Your task to perform on an android device: find which apps use the phone's location Image 0: 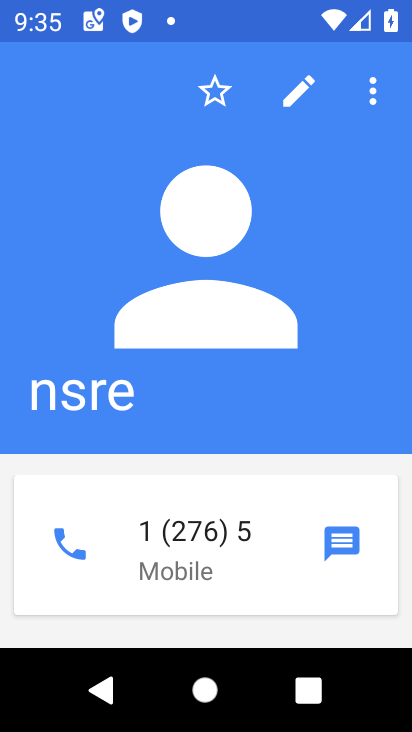
Step 0: press home button
Your task to perform on an android device: find which apps use the phone's location Image 1: 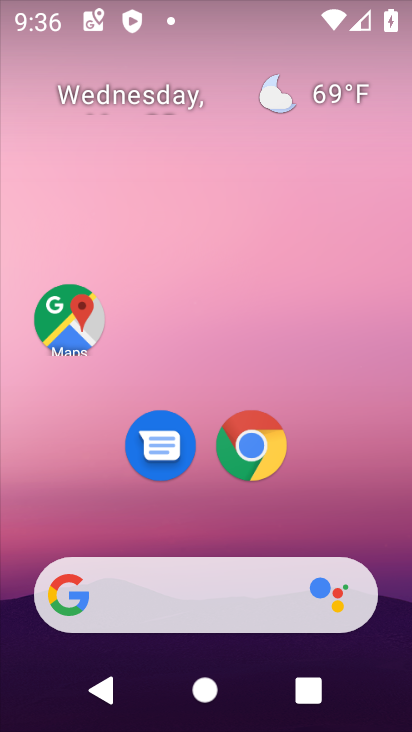
Step 1: drag from (401, 576) to (330, 264)
Your task to perform on an android device: find which apps use the phone's location Image 2: 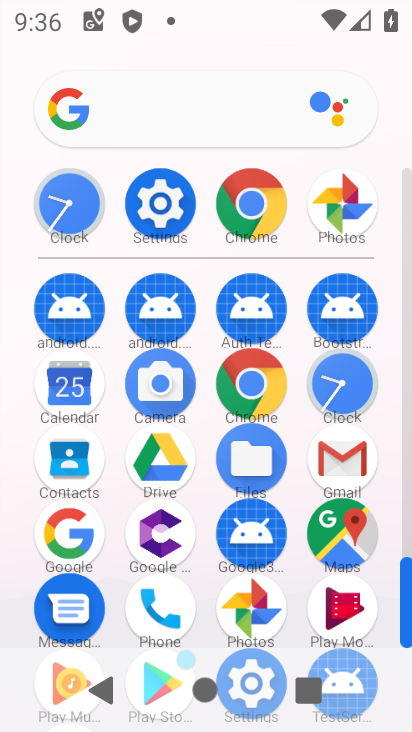
Step 2: click (171, 625)
Your task to perform on an android device: find which apps use the phone's location Image 3: 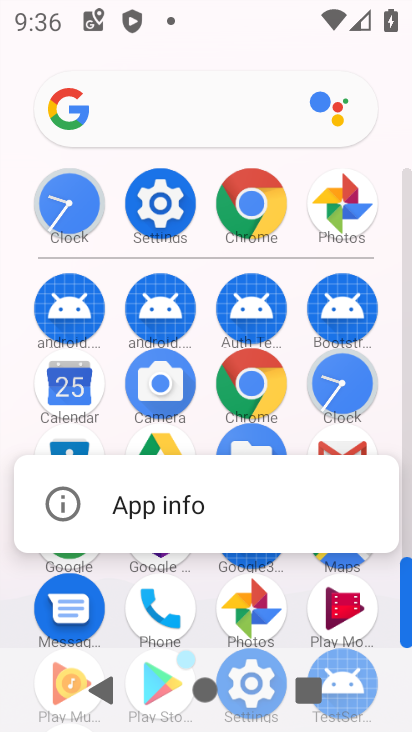
Step 3: click (192, 529)
Your task to perform on an android device: find which apps use the phone's location Image 4: 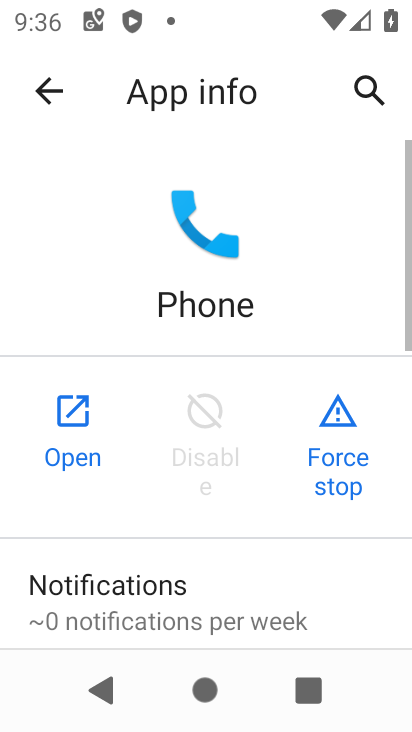
Step 4: drag from (192, 569) to (261, 449)
Your task to perform on an android device: find which apps use the phone's location Image 5: 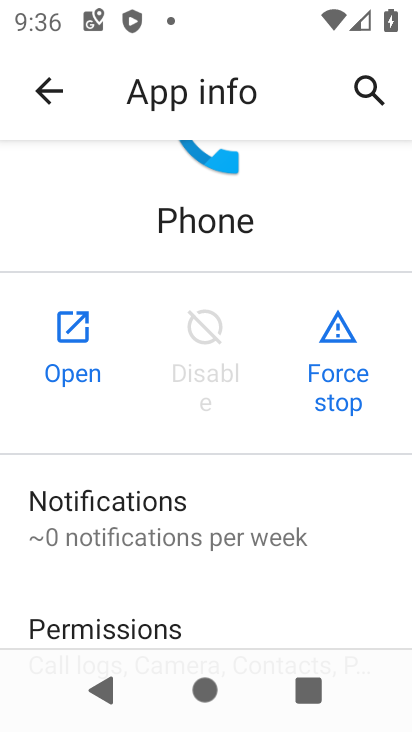
Step 5: drag from (233, 552) to (276, 451)
Your task to perform on an android device: find which apps use the phone's location Image 6: 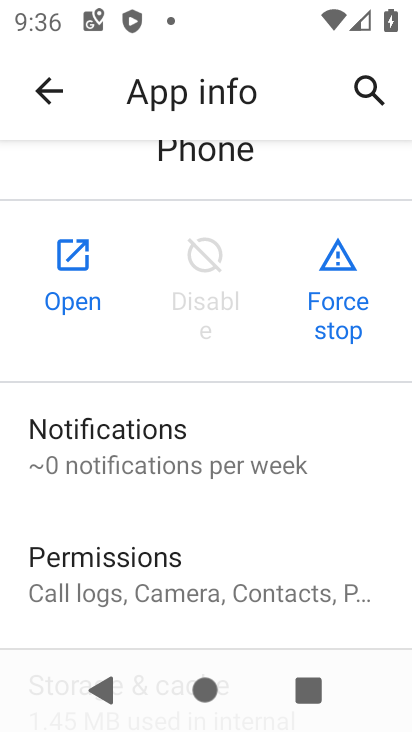
Step 6: click (205, 567)
Your task to perform on an android device: find which apps use the phone's location Image 7: 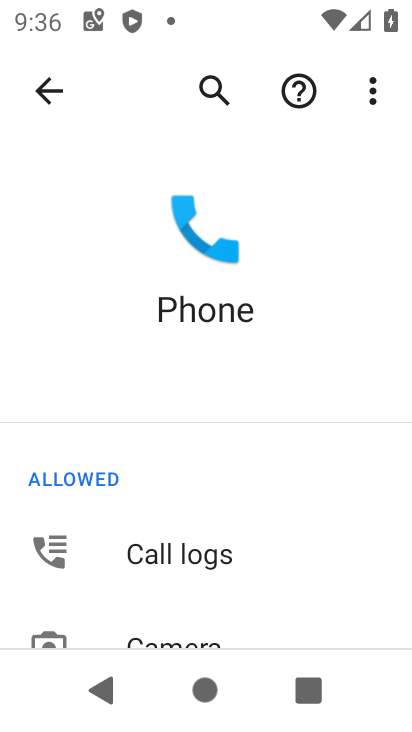
Step 7: drag from (205, 567) to (388, 327)
Your task to perform on an android device: find which apps use the phone's location Image 8: 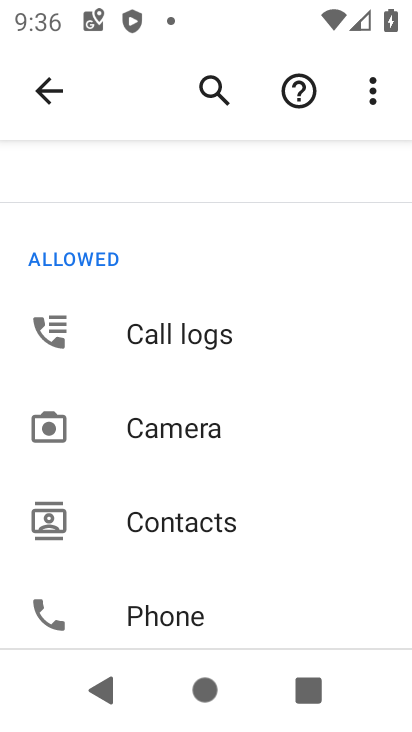
Step 8: drag from (243, 606) to (155, 3)
Your task to perform on an android device: find which apps use the phone's location Image 9: 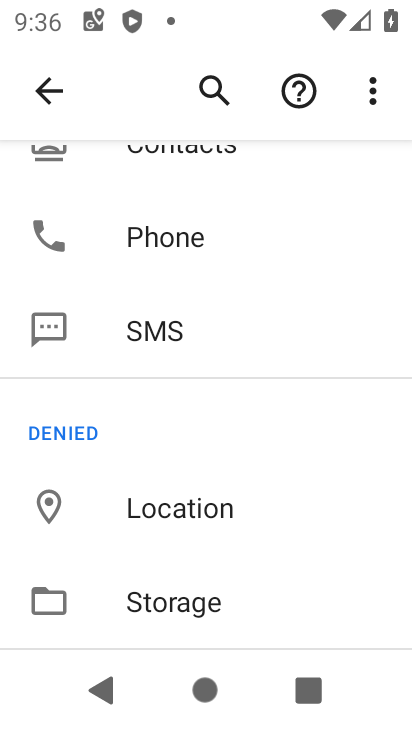
Step 9: click (214, 531)
Your task to perform on an android device: find which apps use the phone's location Image 10: 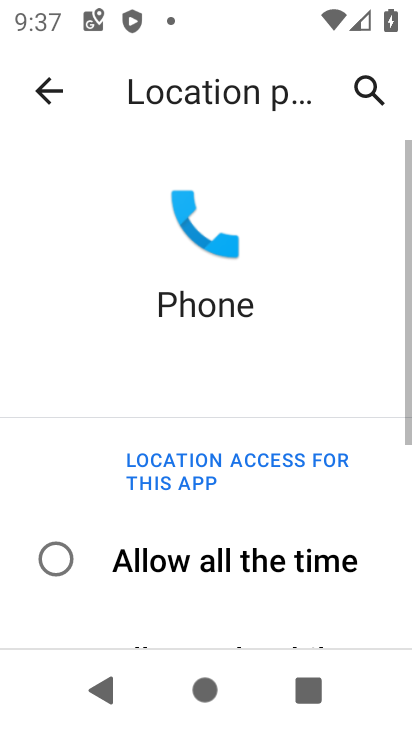
Step 10: drag from (214, 531) to (190, 11)
Your task to perform on an android device: find which apps use the phone's location Image 11: 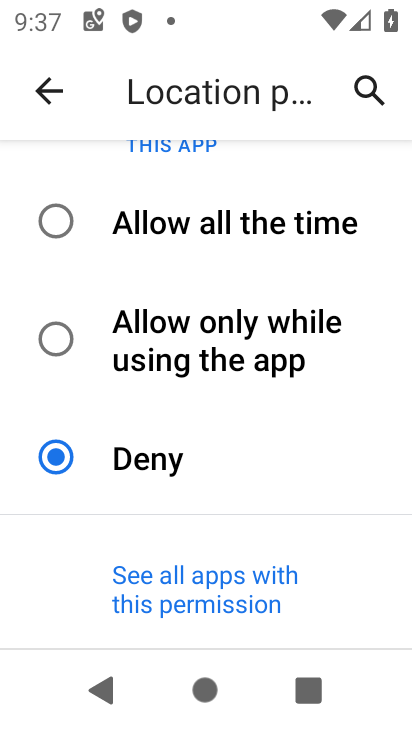
Step 11: click (293, 594)
Your task to perform on an android device: find which apps use the phone's location Image 12: 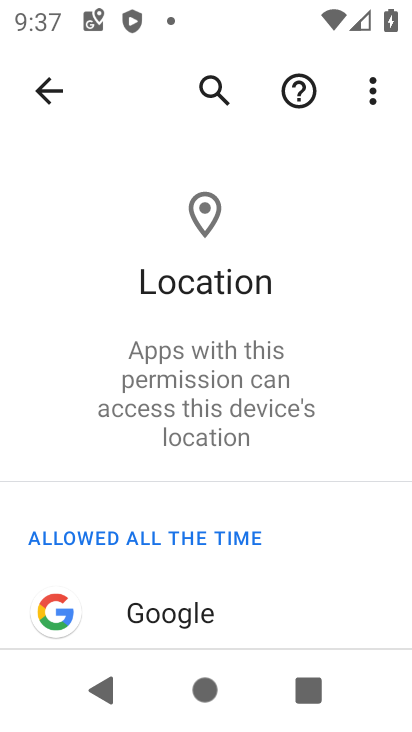
Step 12: task complete